Your task to perform on an android device: Search for the best way to get rid of a cold Image 0: 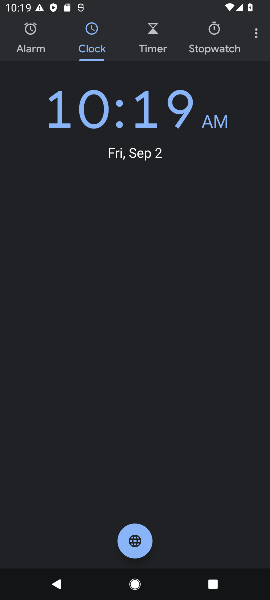
Step 0: press home button
Your task to perform on an android device: Search for the best way to get rid of a cold Image 1: 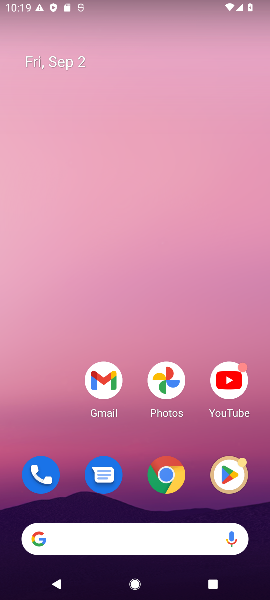
Step 1: click (166, 474)
Your task to perform on an android device: Search for the best way to get rid of a cold Image 2: 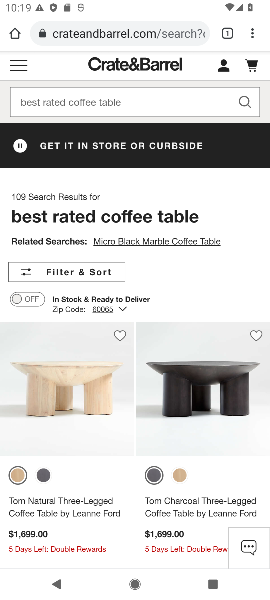
Step 2: click (116, 34)
Your task to perform on an android device: Search for the best way to get rid of a cold Image 3: 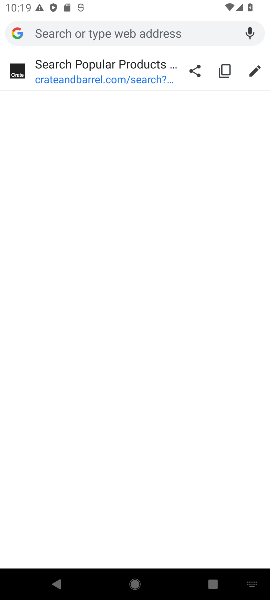
Step 3: type "the best way to get rid of a cold"
Your task to perform on an android device: Search for the best way to get rid of a cold Image 4: 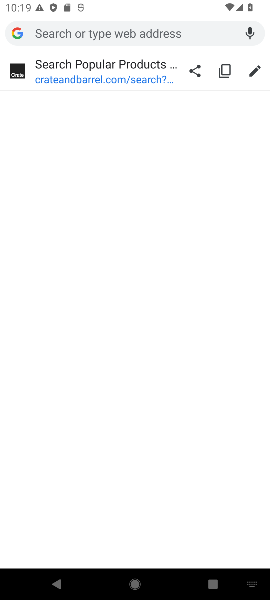
Step 4: click (119, 27)
Your task to perform on an android device: Search for the best way to get rid of a cold Image 5: 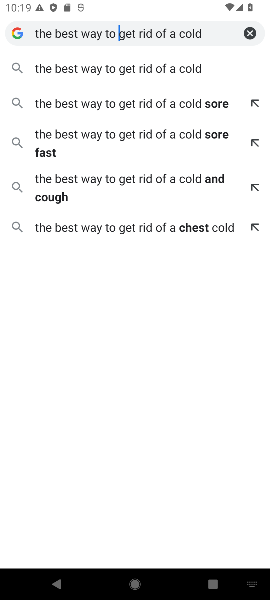
Step 5: click (137, 64)
Your task to perform on an android device: Search for the best way to get rid of a cold Image 6: 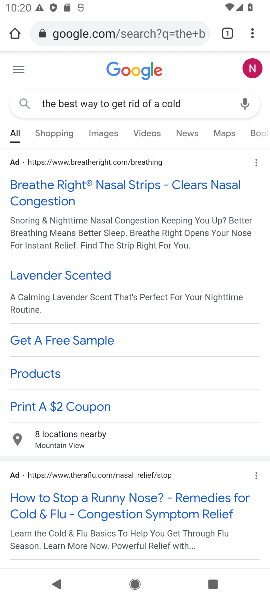
Step 6: task complete